Your task to perform on an android device: Open settings on Google Maps Image 0: 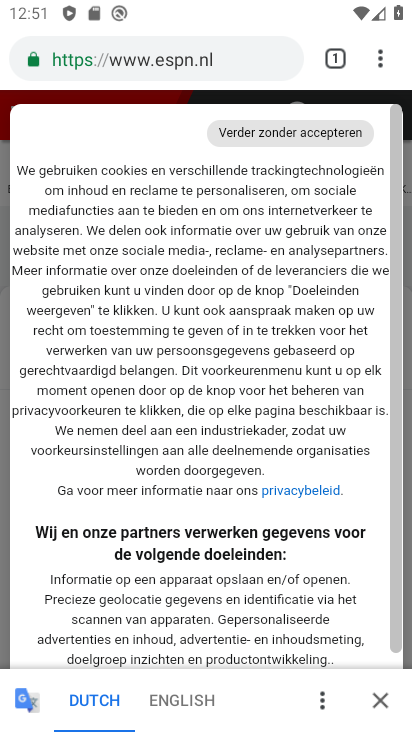
Step 0: press back button
Your task to perform on an android device: Open settings on Google Maps Image 1: 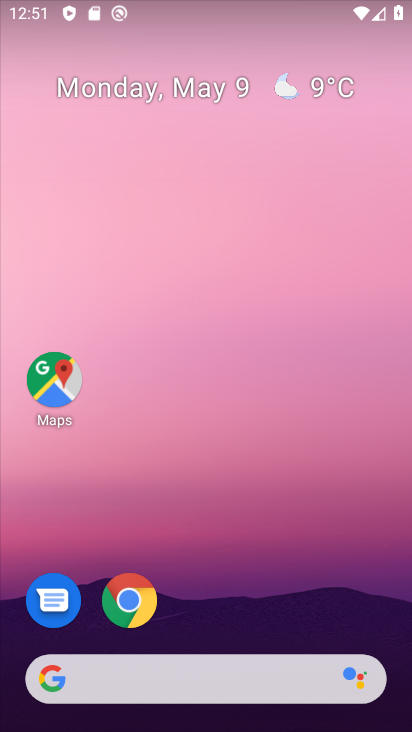
Step 1: click (62, 372)
Your task to perform on an android device: Open settings on Google Maps Image 2: 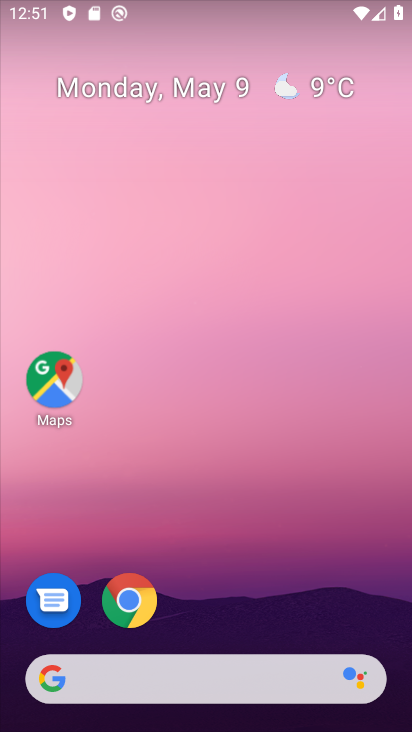
Step 2: click (62, 372)
Your task to perform on an android device: Open settings on Google Maps Image 3: 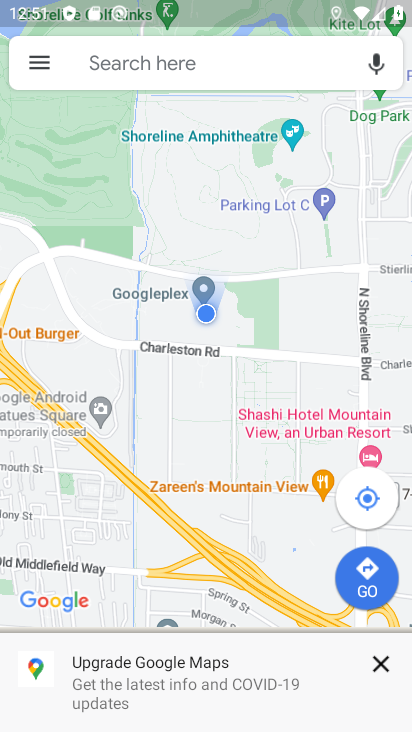
Step 3: click (47, 59)
Your task to perform on an android device: Open settings on Google Maps Image 4: 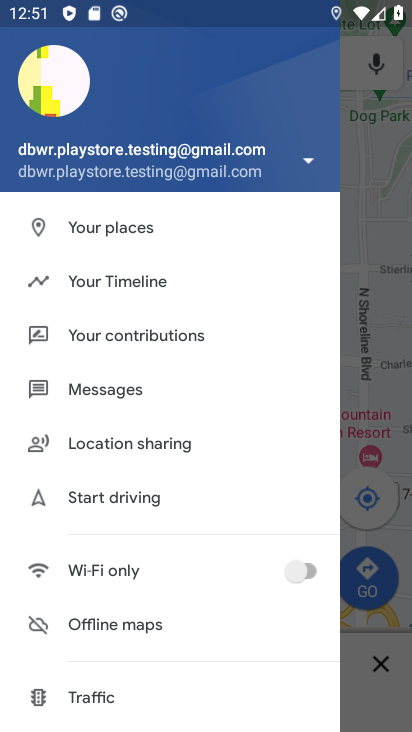
Step 4: drag from (172, 676) to (228, 456)
Your task to perform on an android device: Open settings on Google Maps Image 5: 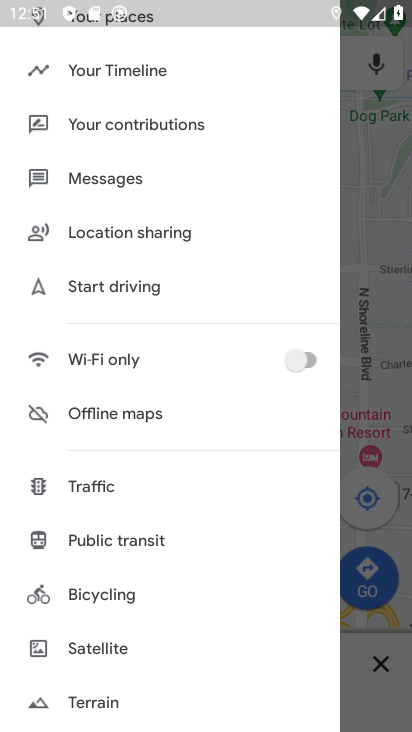
Step 5: drag from (182, 712) to (205, 598)
Your task to perform on an android device: Open settings on Google Maps Image 6: 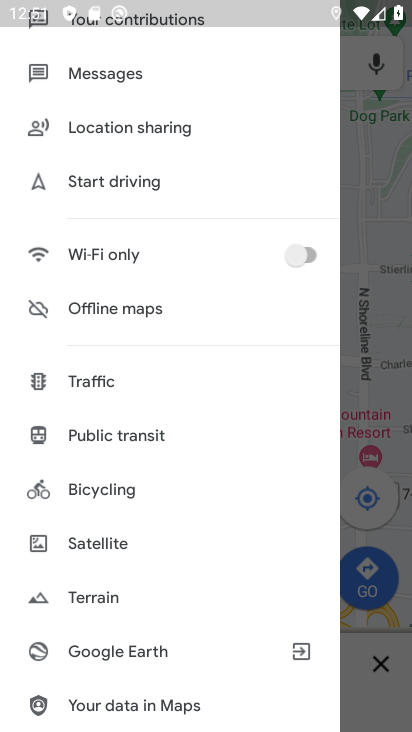
Step 6: drag from (146, 629) to (203, 411)
Your task to perform on an android device: Open settings on Google Maps Image 7: 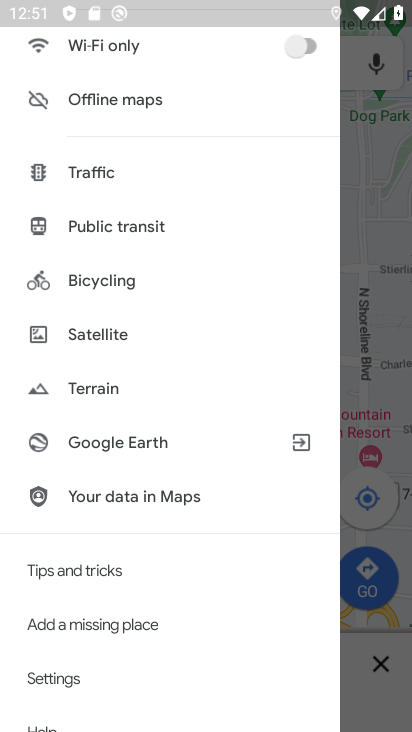
Step 7: click (123, 669)
Your task to perform on an android device: Open settings on Google Maps Image 8: 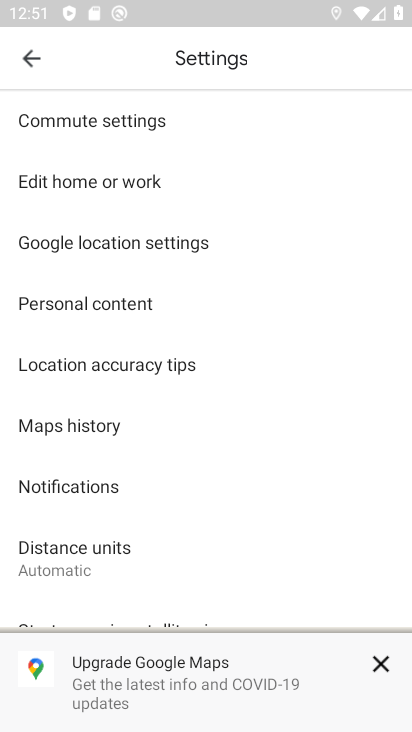
Step 8: click (369, 667)
Your task to perform on an android device: Open settings on Google Maps Image 9: 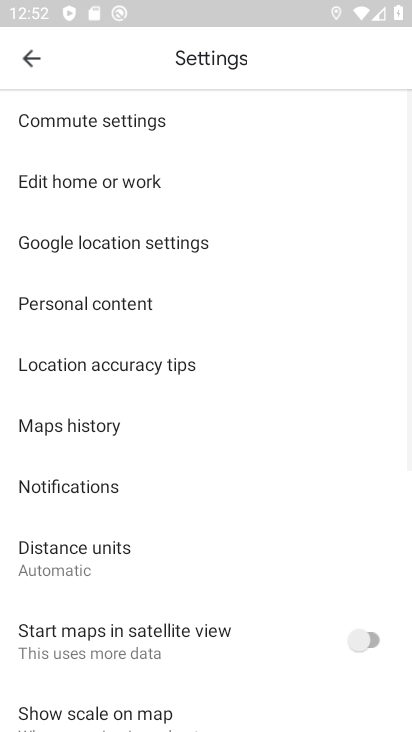
Step 9: task complete